Your task to perform on an android device: Add "macbook pro 13 inch" to the cart on target.com Image 0: 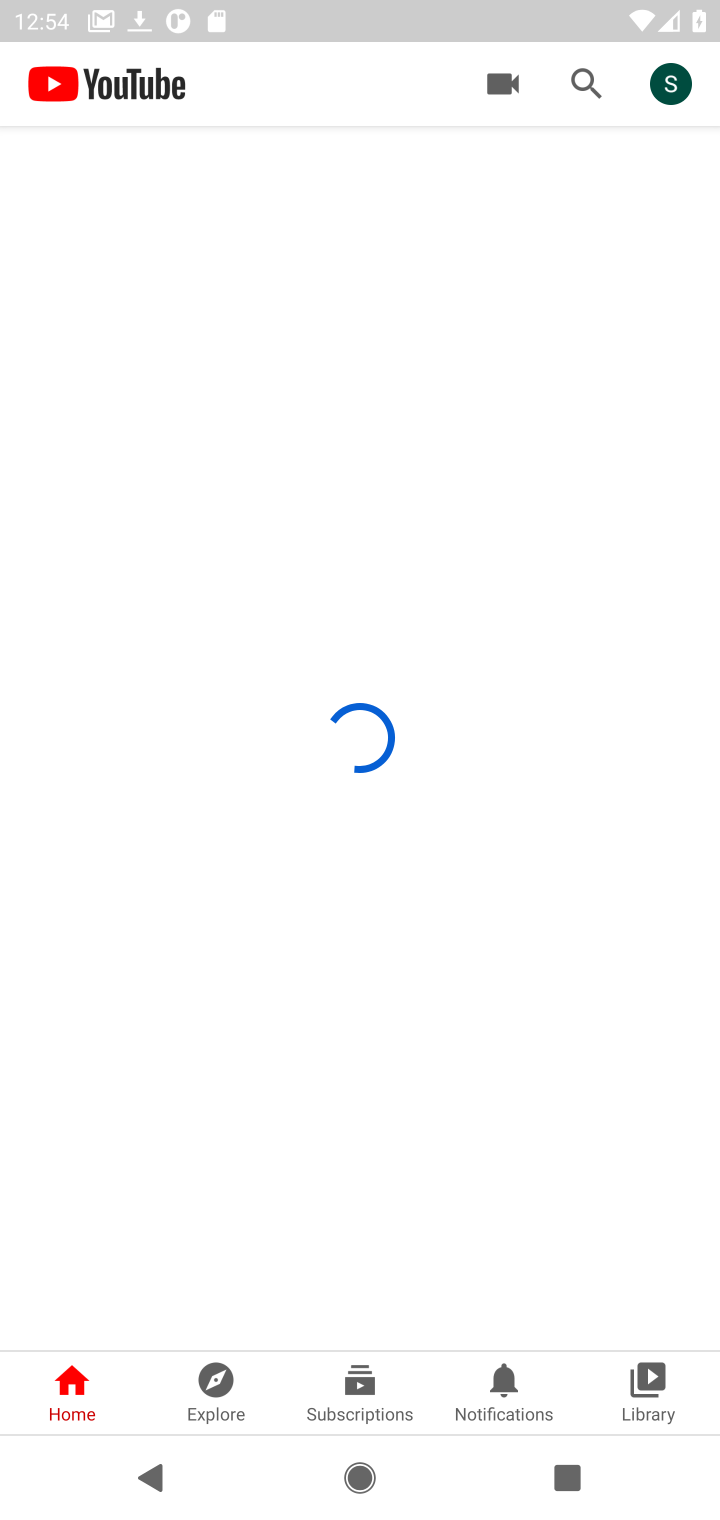
Step 0: press home button
Your task to perform on an android device: Add "macbook pro 13 inch" to the cart on target.com Image 1: 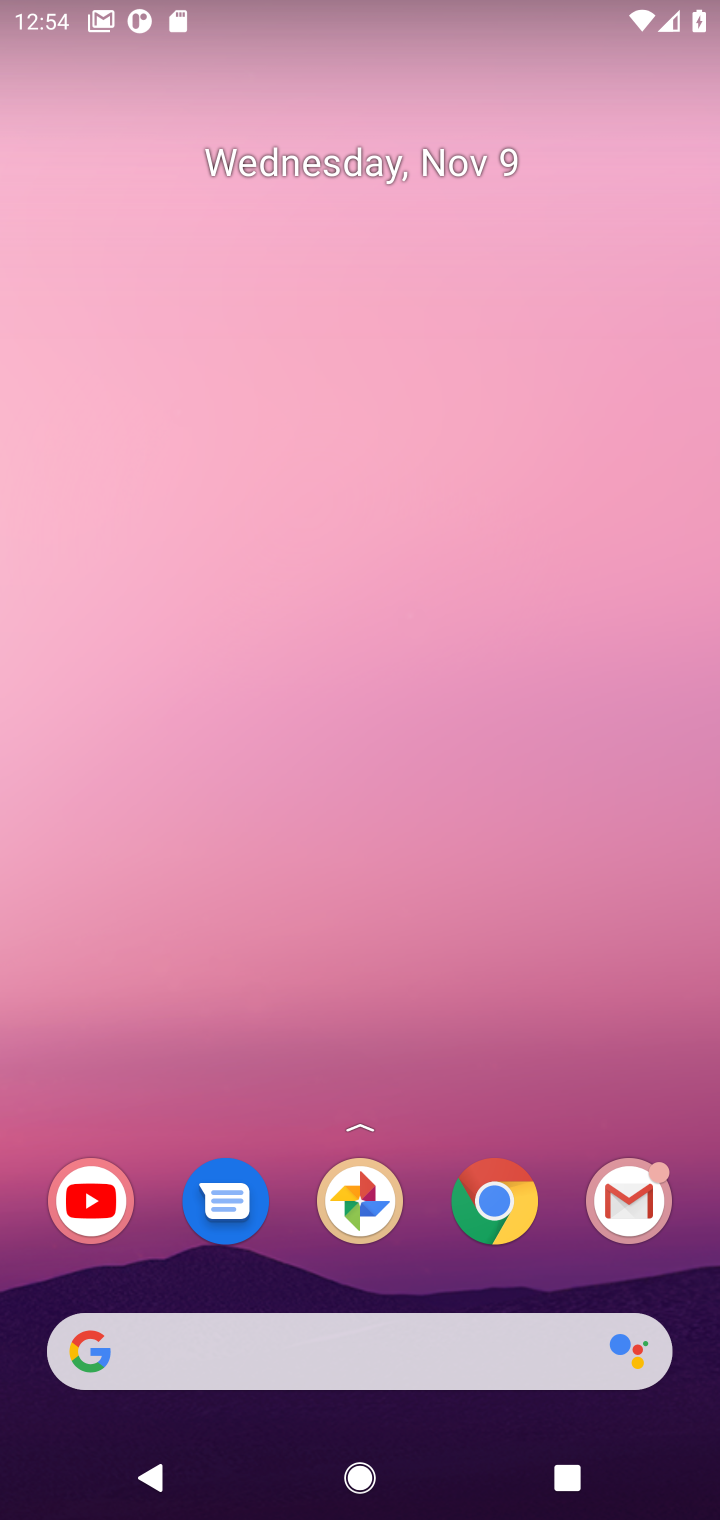
Step 1: click (356, 1359)
Your task to perform on an android device: Add "macbook pro 13 inch" to the cart on target.com Image 2: 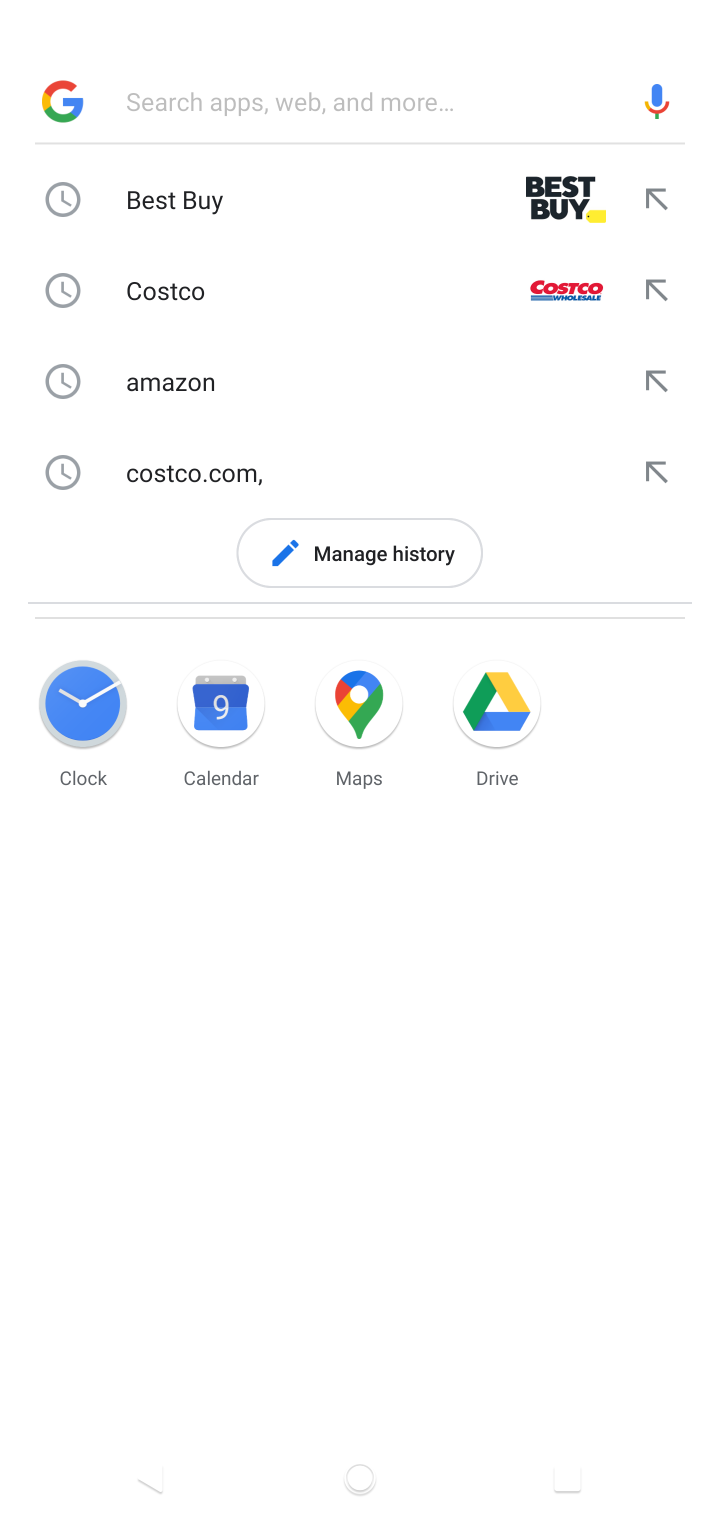
Step 2: click (356, 1359)
Your task to perform on an android device: Add "macbook pro 13 inch" to the cart on target.com Image 3: 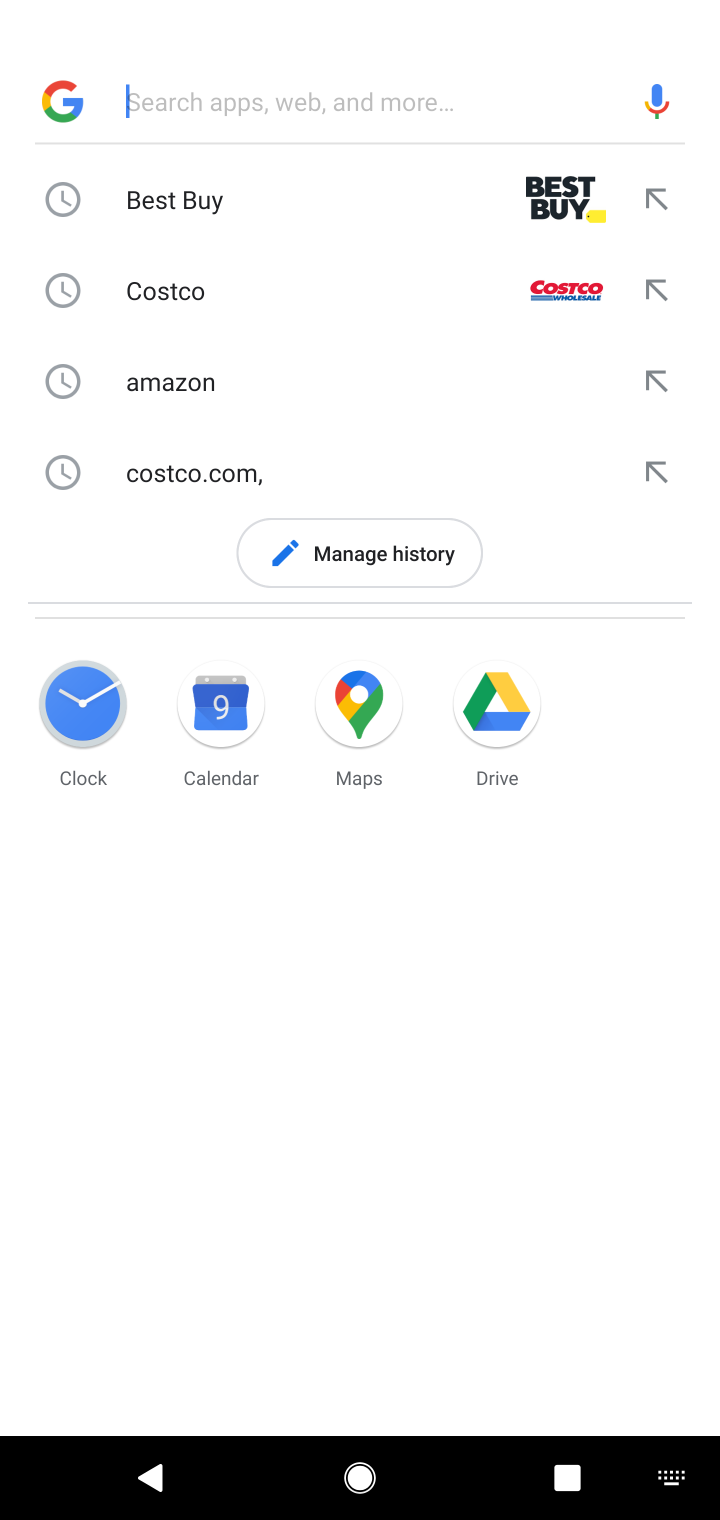
Step 3: type "target.com"
Your task to perform on an android device: Add "macbook pro 13 inch" to the cart on target.com Image 4: 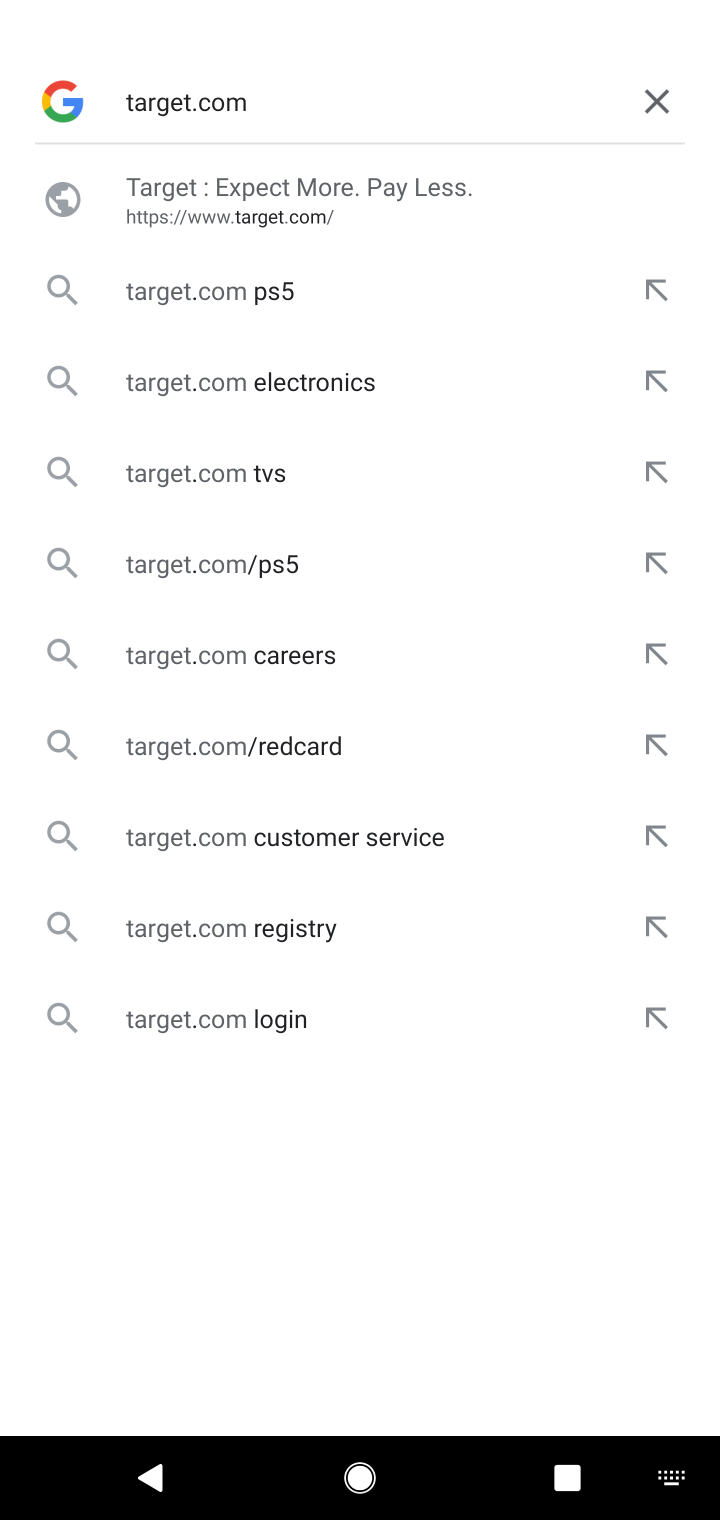
Step 4: click (303, 198)
Your task to perform on an android device: Add "macbook pro 13 inch" to the cart on target.com Image 5: 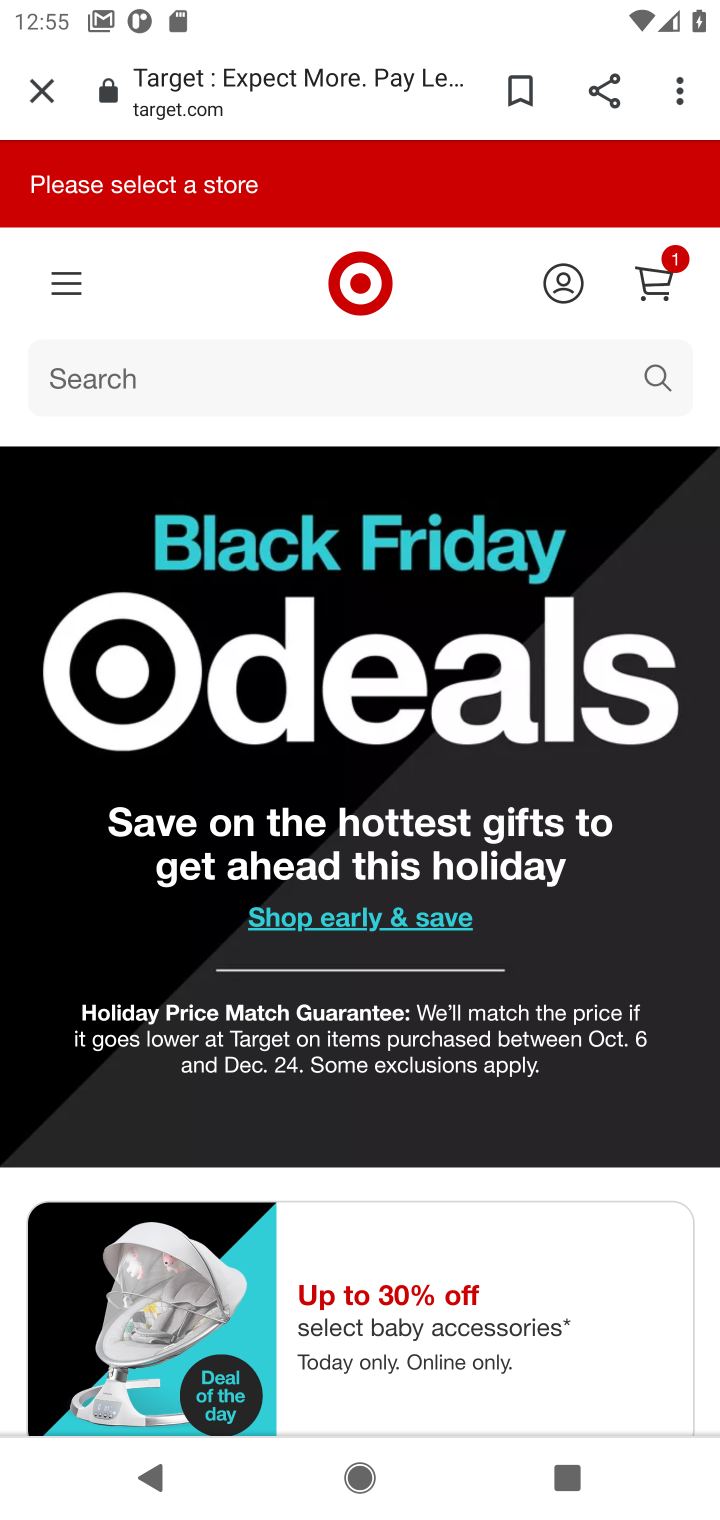
Step 5: click (207, 405)
Your task to perform on an android device: Add "macbook pro 13 inch" to the cart on target.com Image 6: 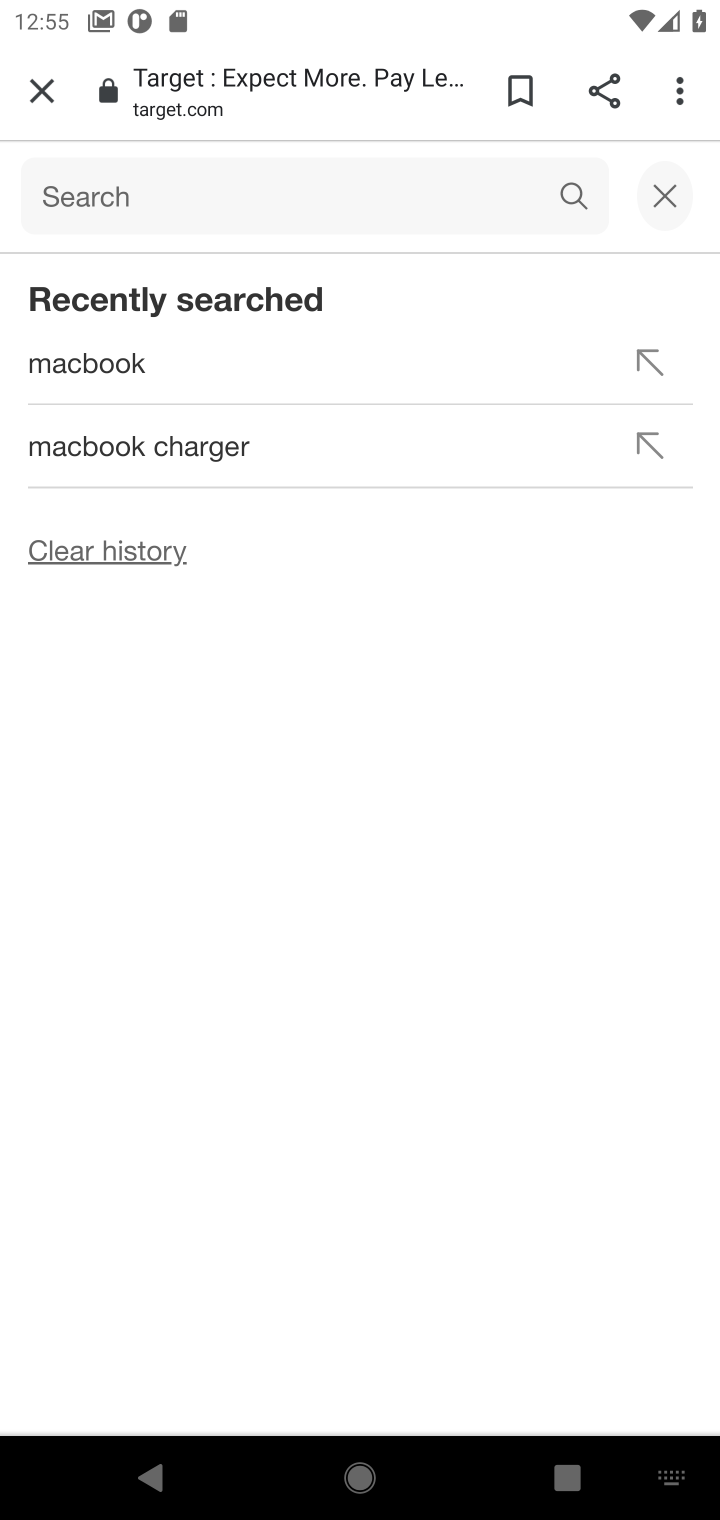
Step 6: click (228, 1027)
Your task to perform on an android device: Add "macbook pro 13 inch" to the cart on target.com Image 7: 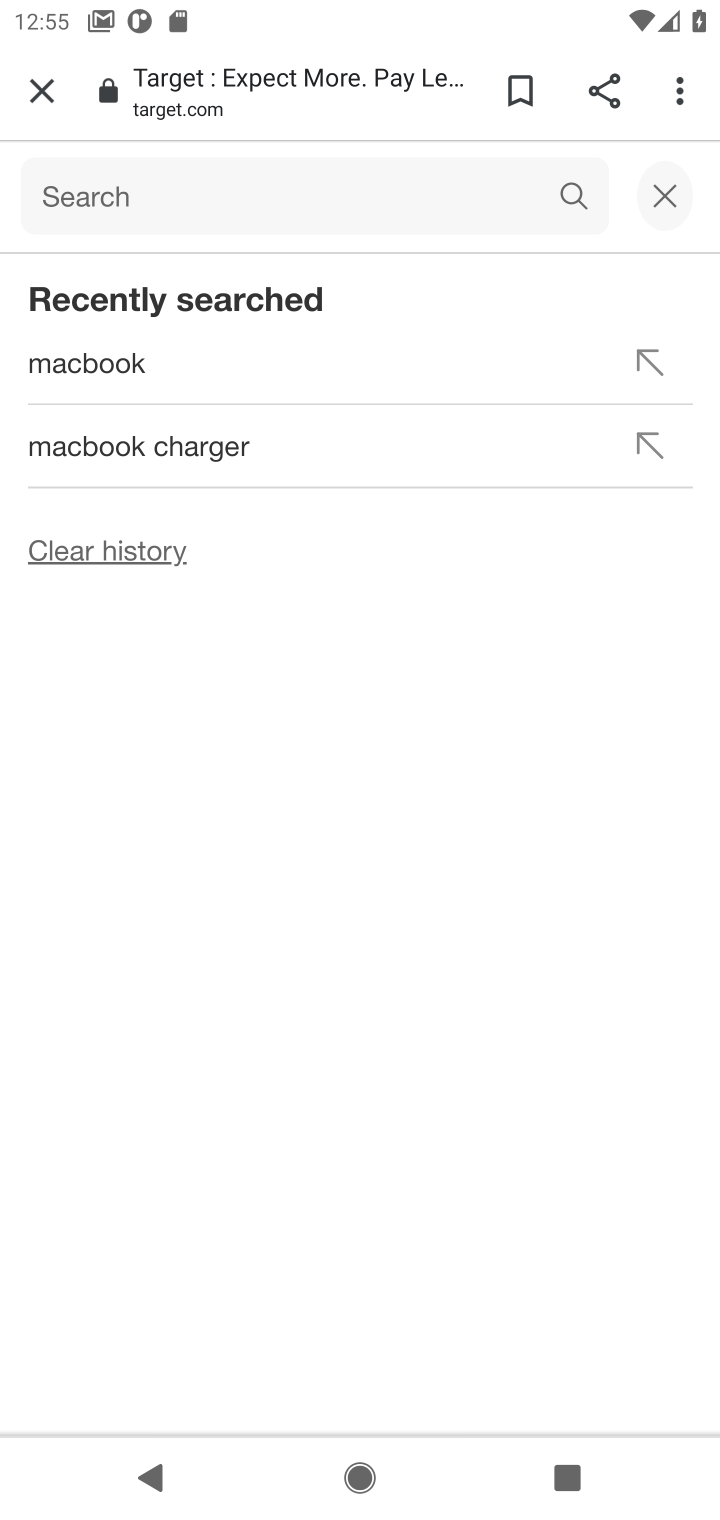
Step 7: click (470, 199)
Your task to perform on an android device: Add "macbook pro 13 inch" to the cart on target.com Image 8: 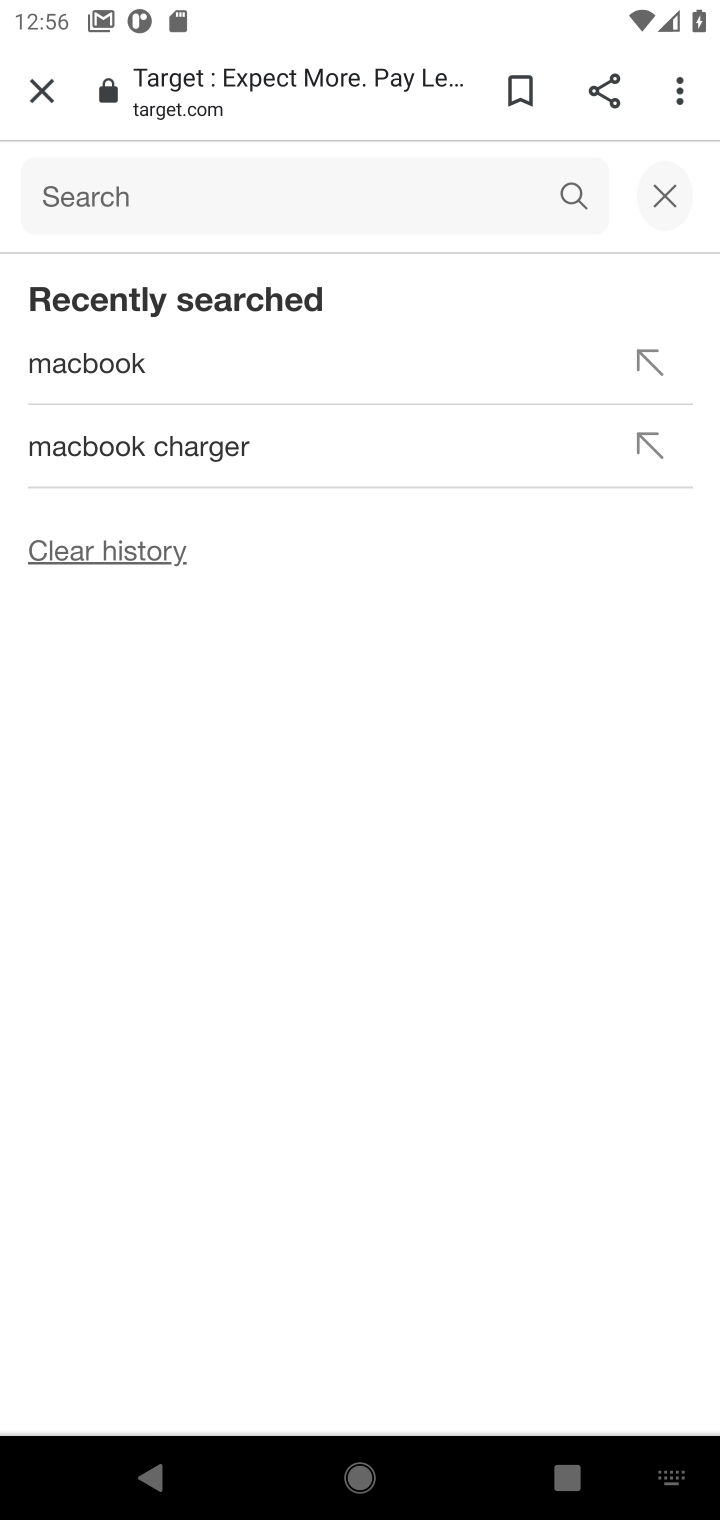
Step 8: type "macbook pro 13 inch"
Your task to perform on an android device: Add "macbook pro 13 inch" to the cart on target.com Image 9: 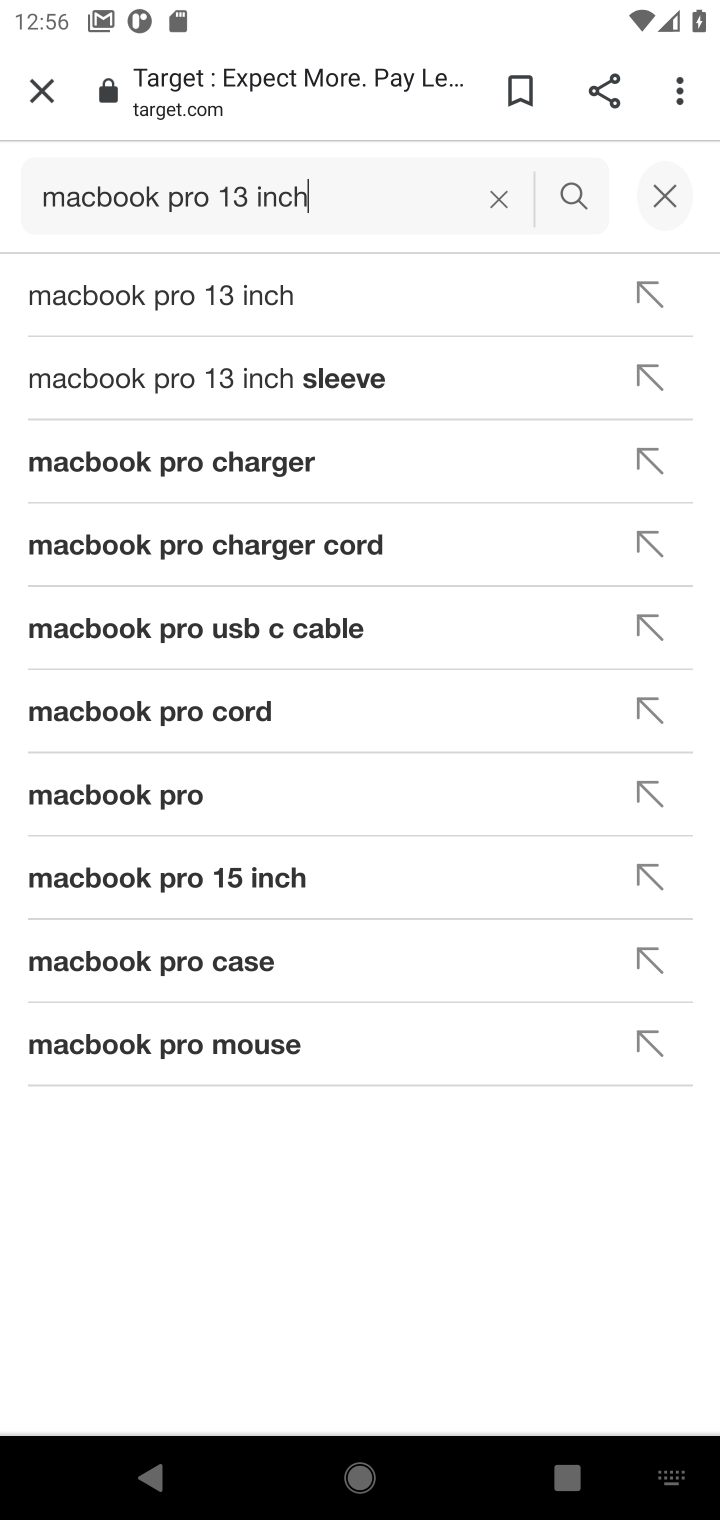
Step 9: click (126, 296)
Your task to perform on an android device: Add "macbook pro 13 inch" to the cart on target.com Image 10: 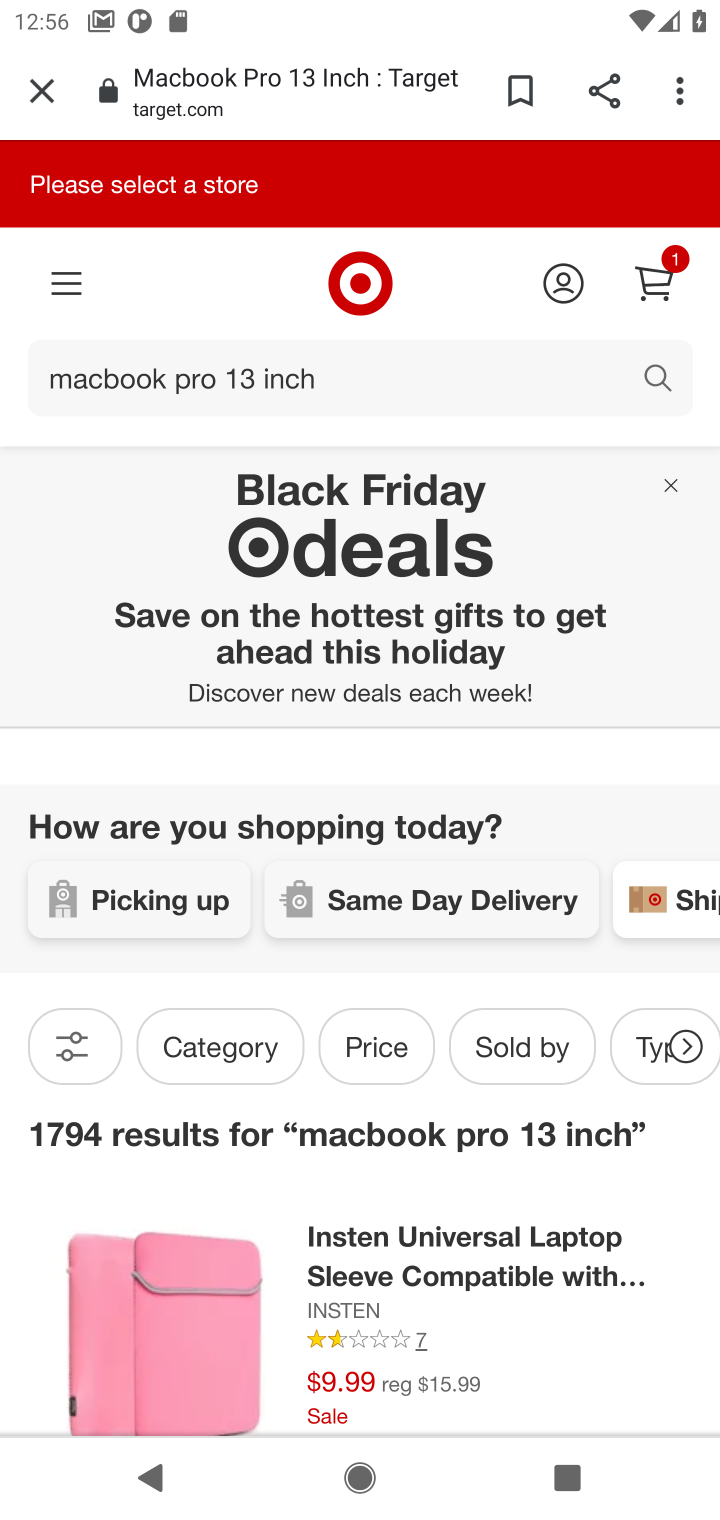
Step 10: click (363, 970)
Your task to perform on an android device: Add "macbook pro 13 inch" to the cart on target.com Image 11: 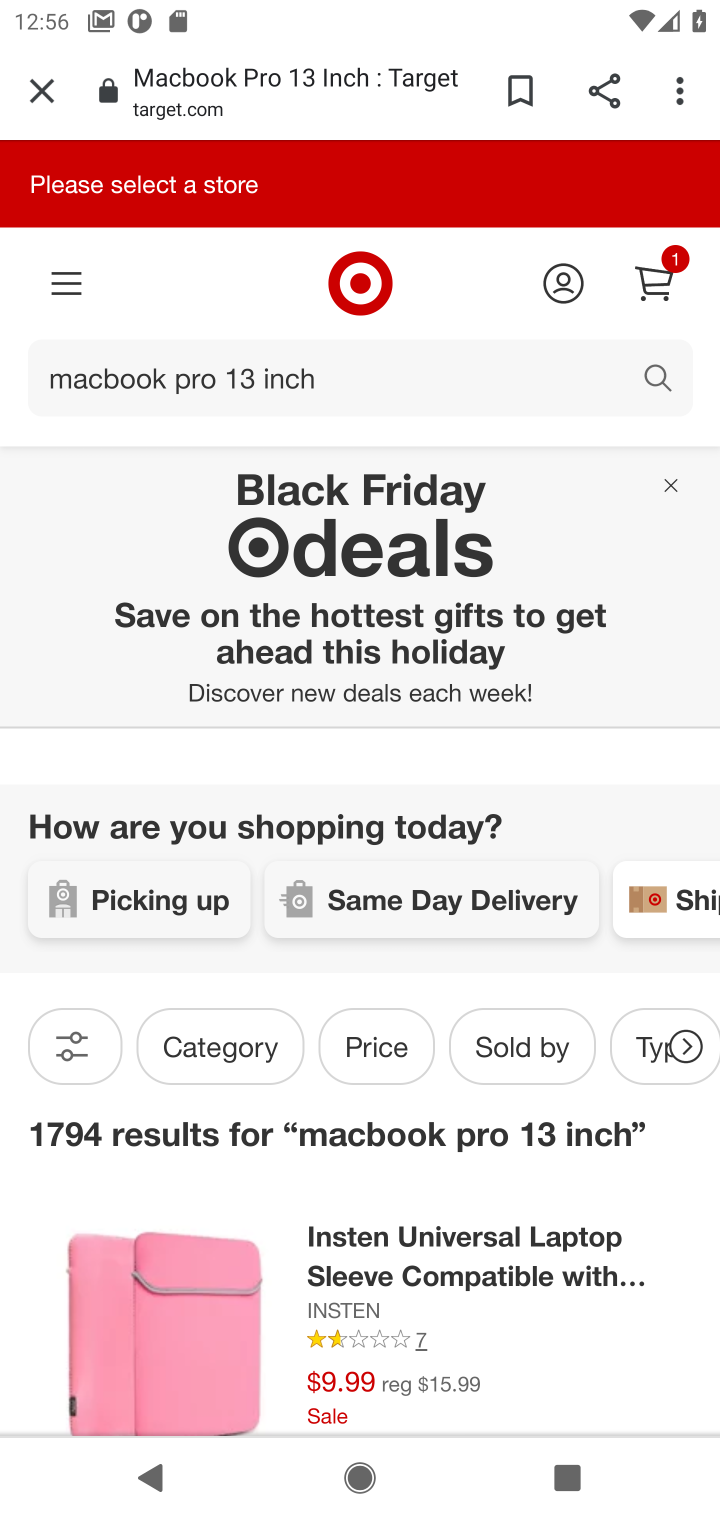
Step 11: click (292, 910)
Your task to perform on an android device: Add "macbook pro 13 inch" to the cart on target.com Image 12: 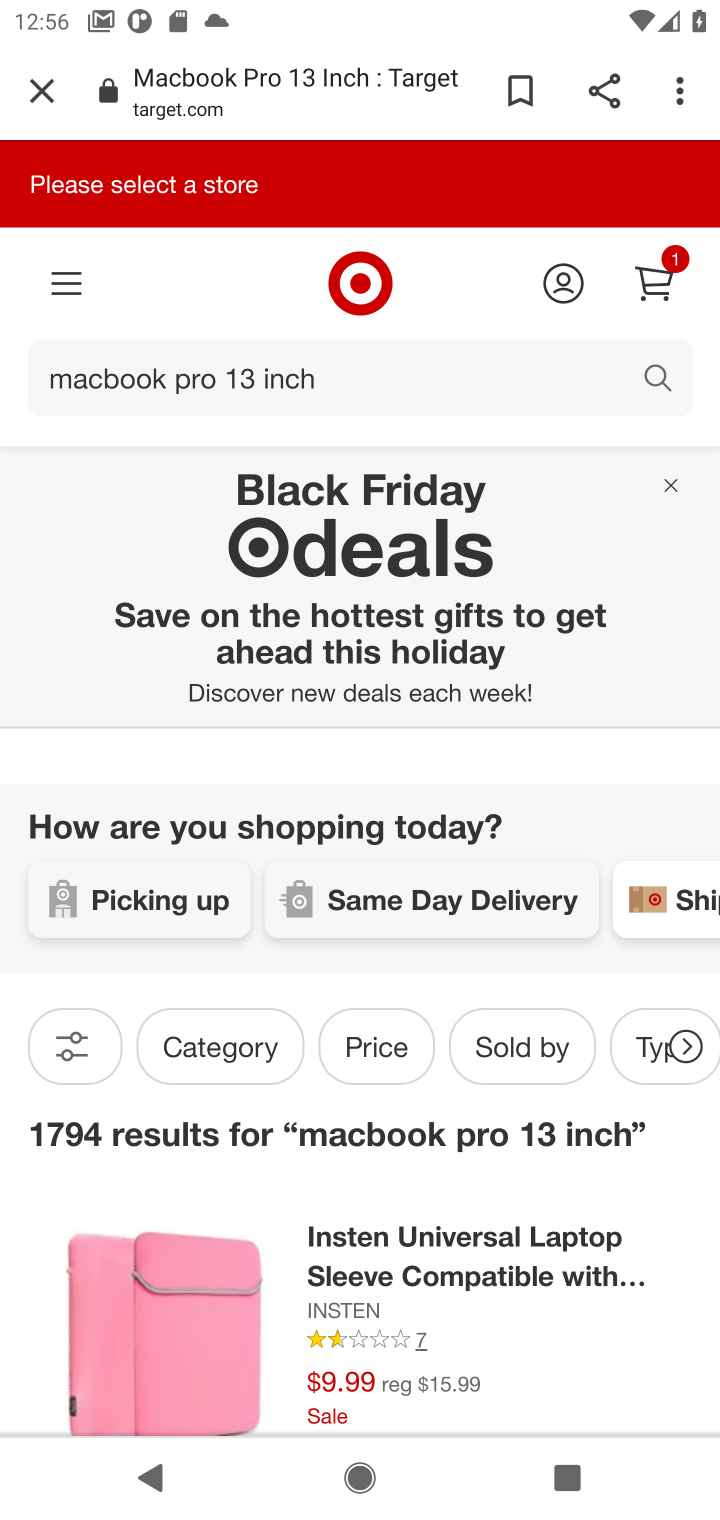
Step 12: drag from (461, 1226) to (464, 998)
Your task to perform on an android device: Add "macbook pro 13 inch" to the cart on target.com Image 13: 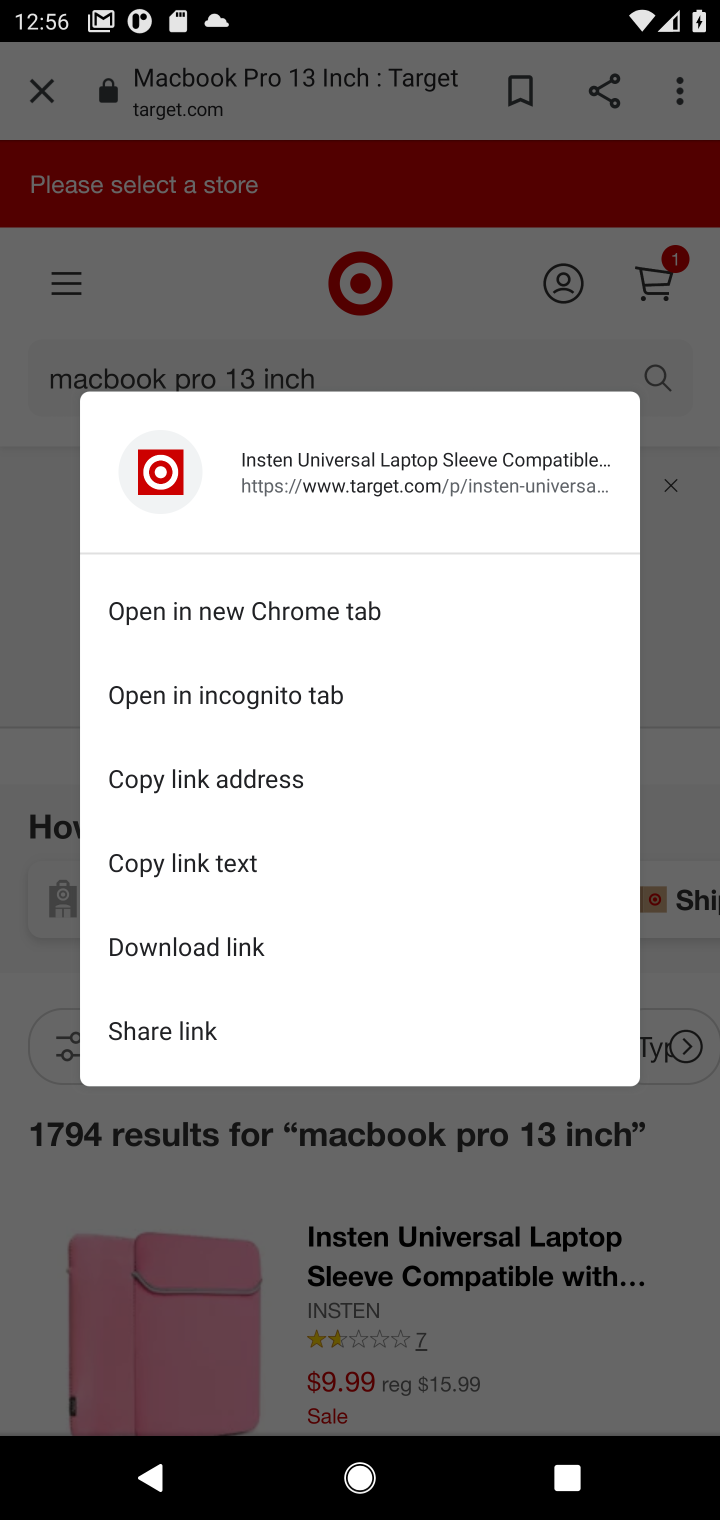
Step 13: click (326, 1265)
Your task to perform on an android device: Add "macbook pro 13 inch" to the cart on target.com Image 14: 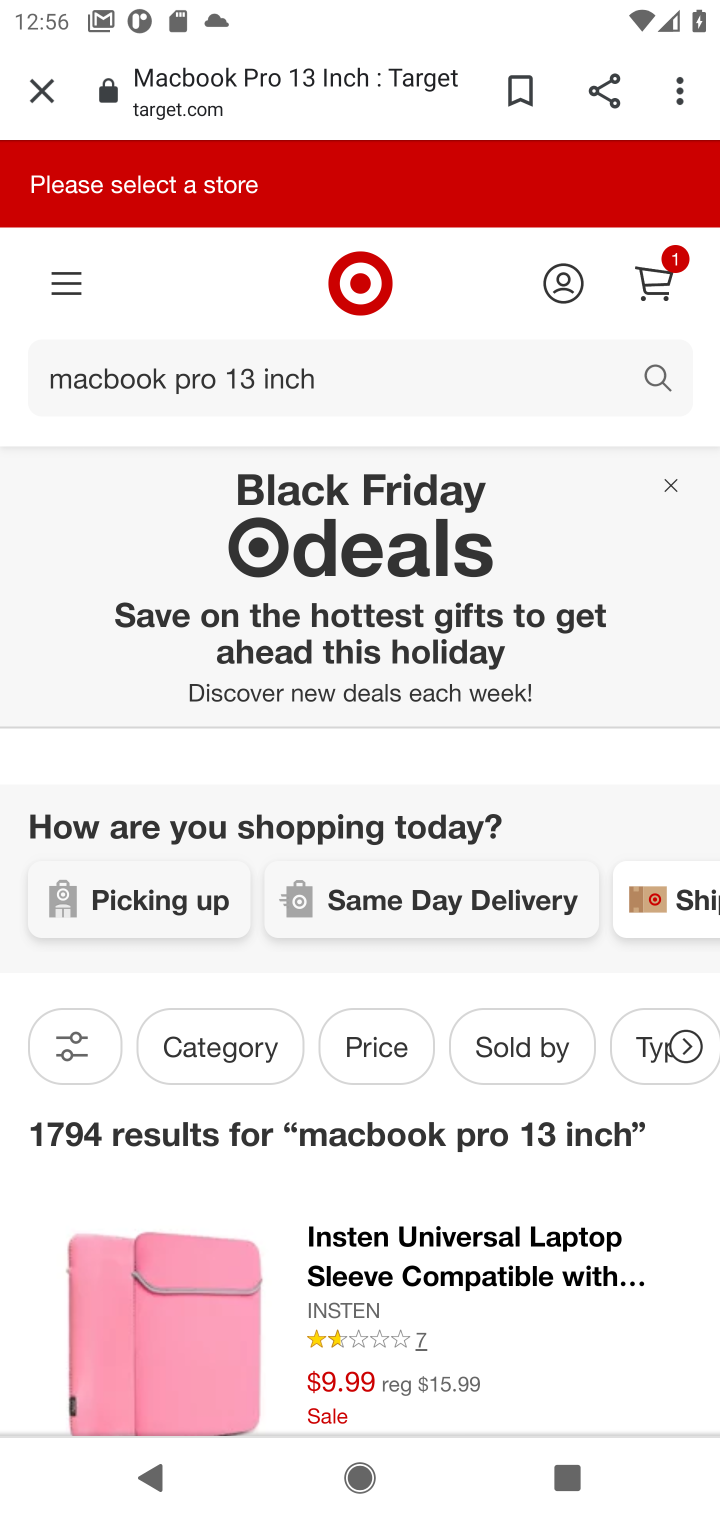
Step 14: click (326, 1265)
Your task to perform on an android device: Add "macbook pro 13 inch" to the cart on target.com Image 15: 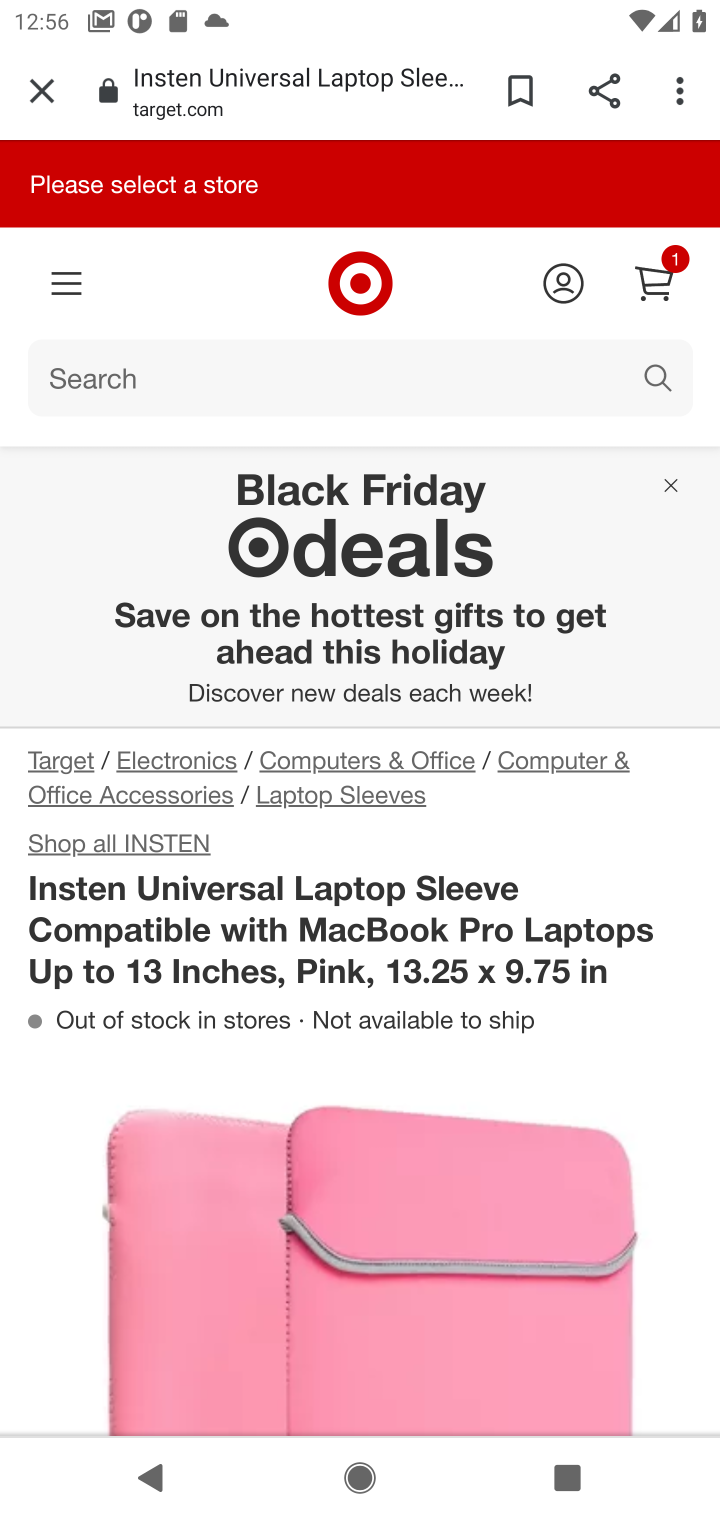
Step 15: task complete